Your task to perform on an android device: empty trash in the gmail app Image 0: 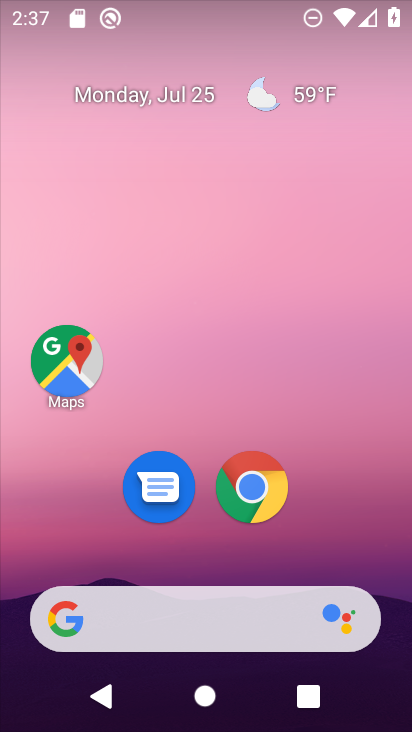
Step 0: drag from (109, 565) to (300, 34)
Your task to perform on an android device: empty trash in the gmail app Image 1: 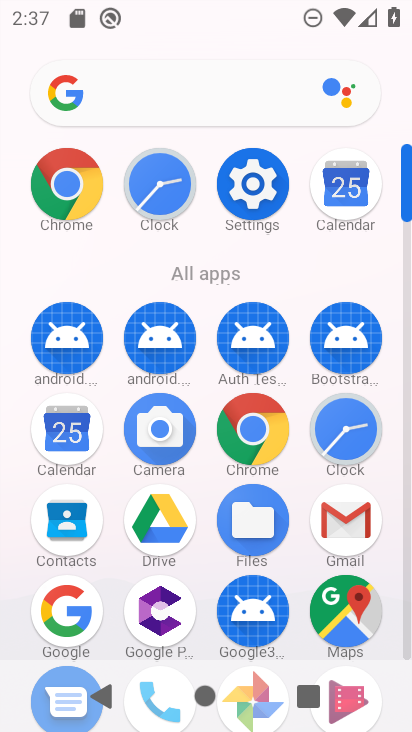
Step 1: click (338, 525)
Your task to perform on an android device: empty trash in the gmail app Image 2: 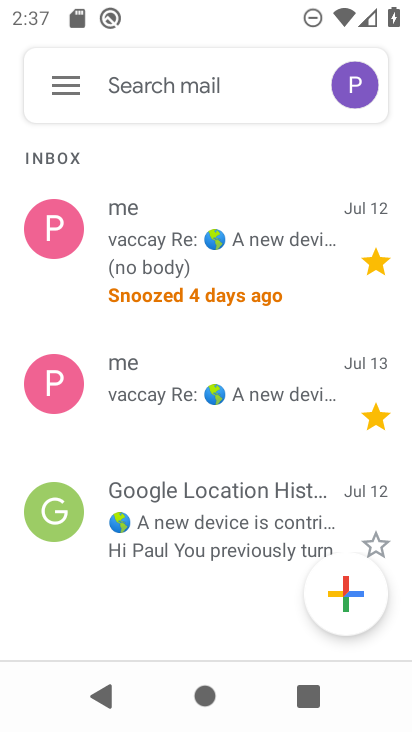
Step 2: click (62, 82)
Your task to perform on an android device: empty trash in the gmail app Image 3: 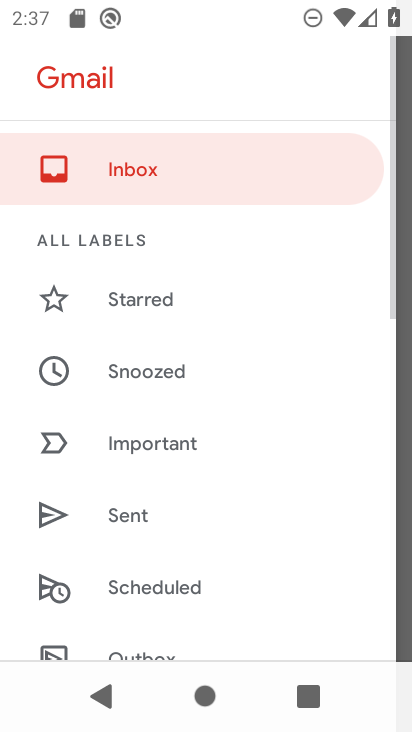
Step 3: drag from (165, 639) to (341, 60)
Your task to perform on an android device: empty trash in the gmail app Image 4: 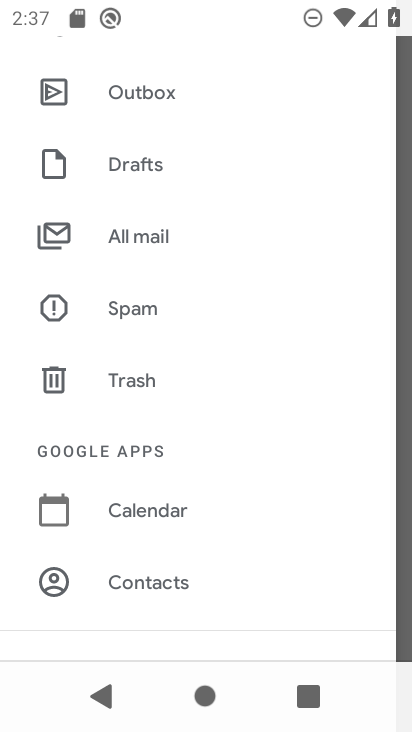
Step 4: click (115, 385)
Your task to perform on an android device: empty trash in the gmail app Image 5: 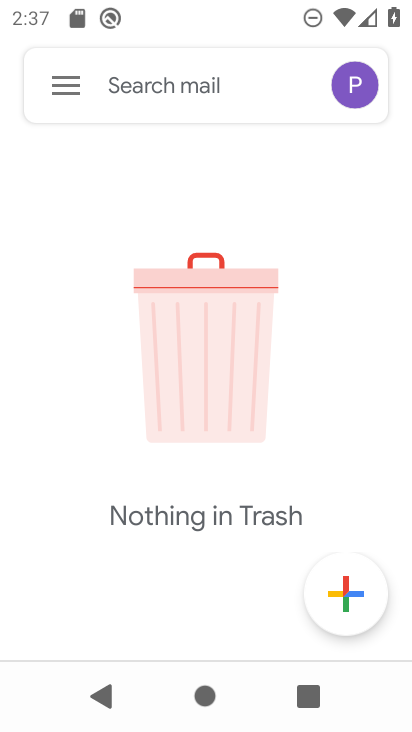
Step 5: task complete